Your task to perform on an android device: Check the weather Image 0: 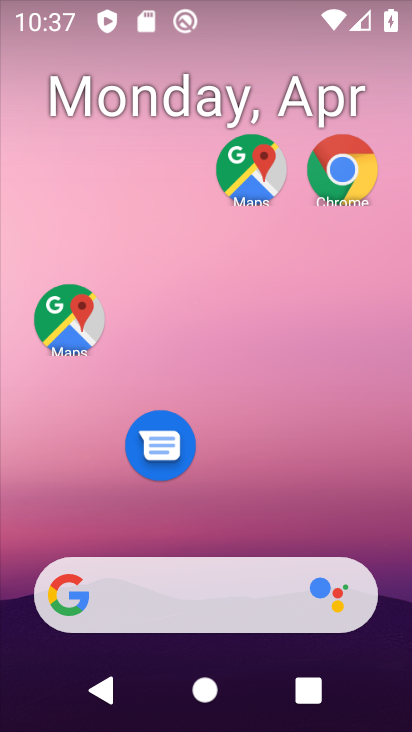
Step 0: drag from (344, 380) to (15, 345)
Your task to perform on an android device: Check the weather Image 1: 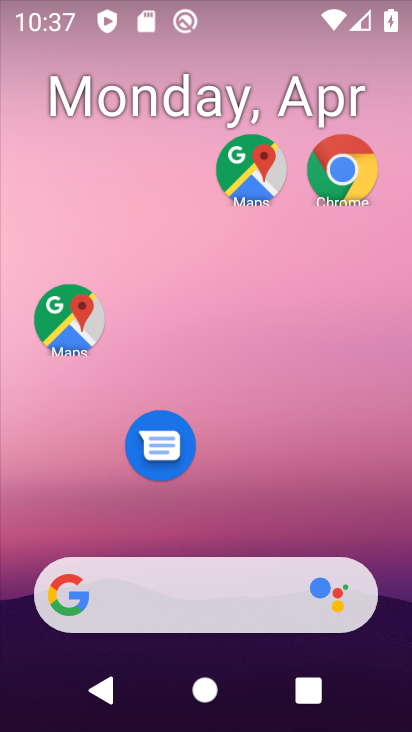
Step 1: drag from (109, 366) to (403, 327)
Your task to perform on an android device: Check the weather Image 2: 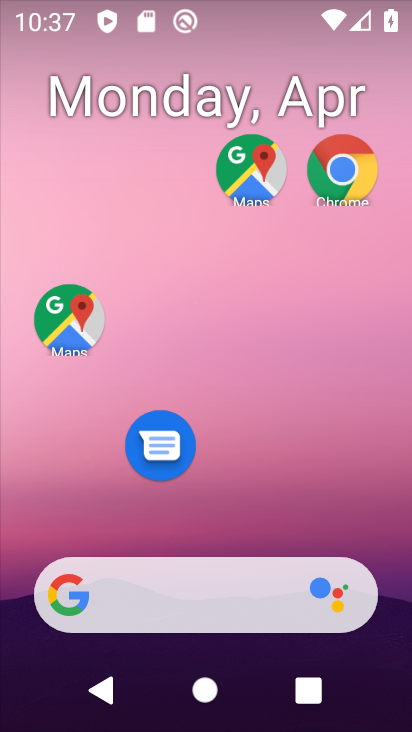
Step 2: drag from (53, 380) to (394, 397)
Your task to perform on an android device: Check the weather Image 3: 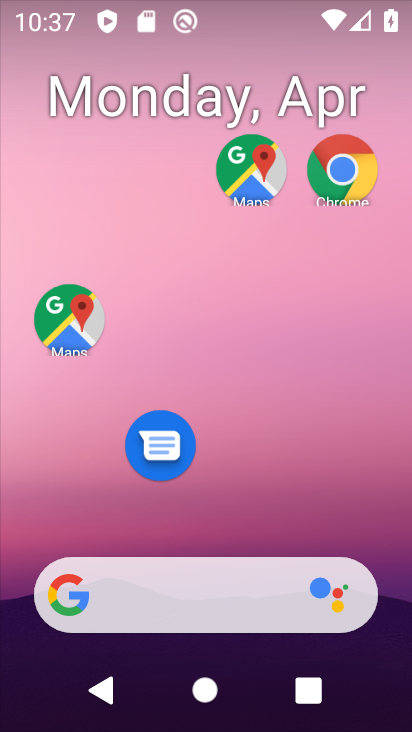
Step 3: drag from (49, 388) to (391, 394)
Your task to perform on an android device: Check the weather Image 4: 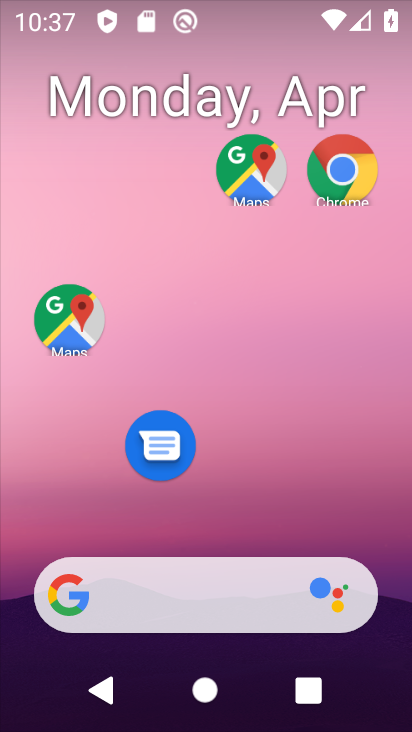
Step 4: drag from (118, 394) to (398, 376)
Your task to perform on an android device: Check the weather Image 5: 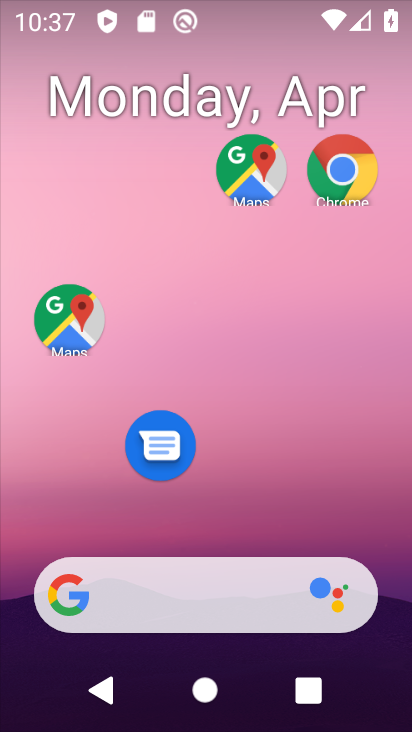
Step 5: drag from (35, 379) to (373, 317)
Your task to perform on an android device: Check the weather Image 6: 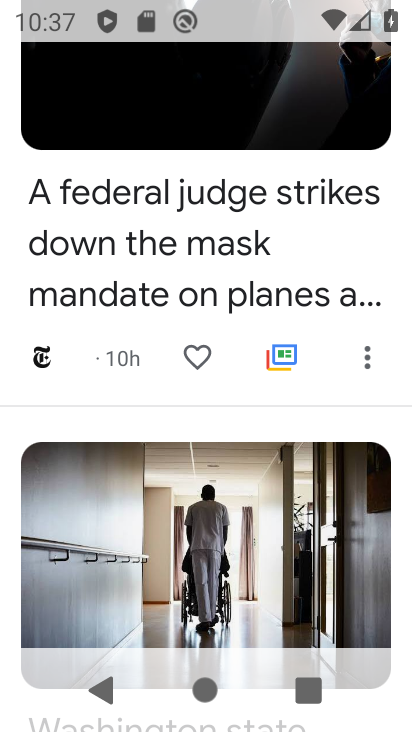
Step 6: drag from (358, 323) to (293, 730)
Your task to perform on an android device: Check the weather Image 7: 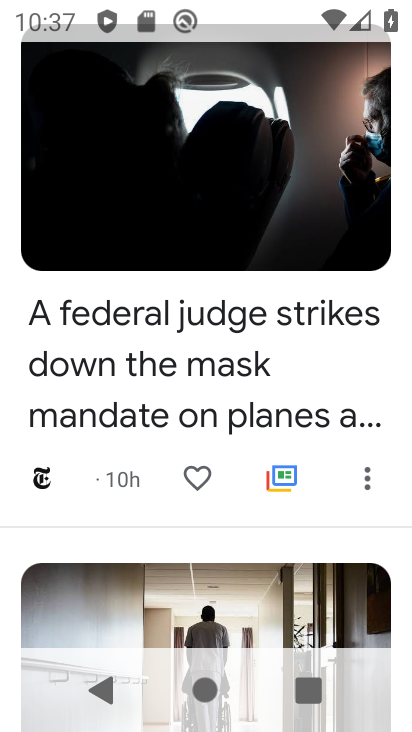
Step 7: drag from (351, 392) to (312, 653)
Your task to perform on an android device: Check the weather Image 8: 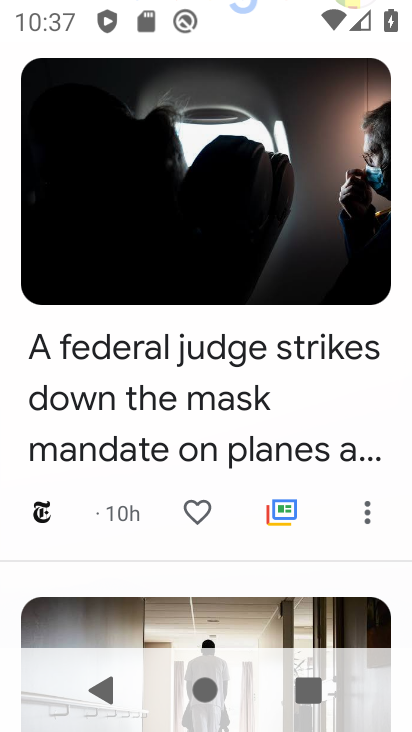
Step 8: drag from (81, 64) to (49, 560)
Your task to perform on an android device: Check the weather Image 9: 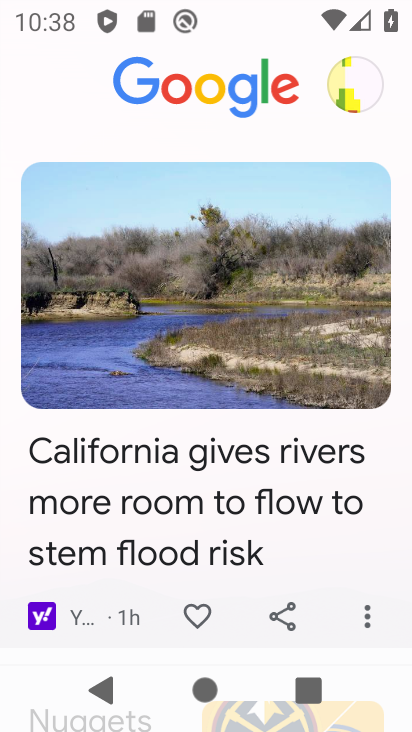
Step 9: drag from (355, 486) to (15, 424)
Your task to perform on an android device: Check the weather Image 10: 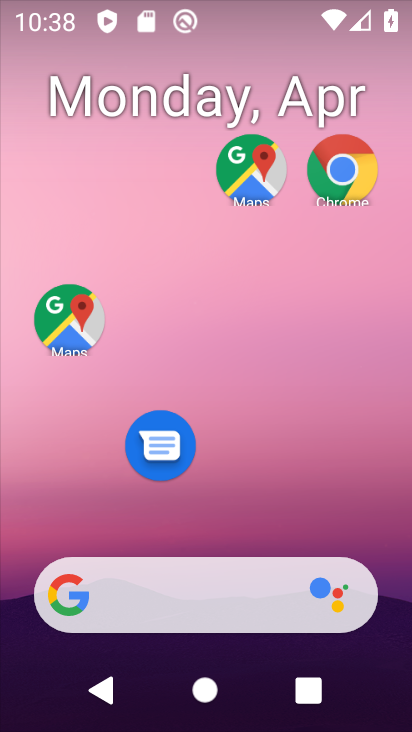
Step 10: click (213, 589)
Your task to perform on an android device: Check the weather Image 11: 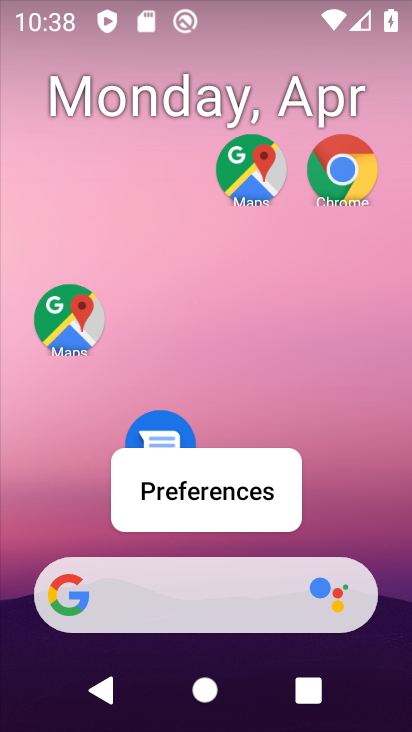
Step 11: click (218, 582)
Your task to perform on an android device: Check the weather Image 12: 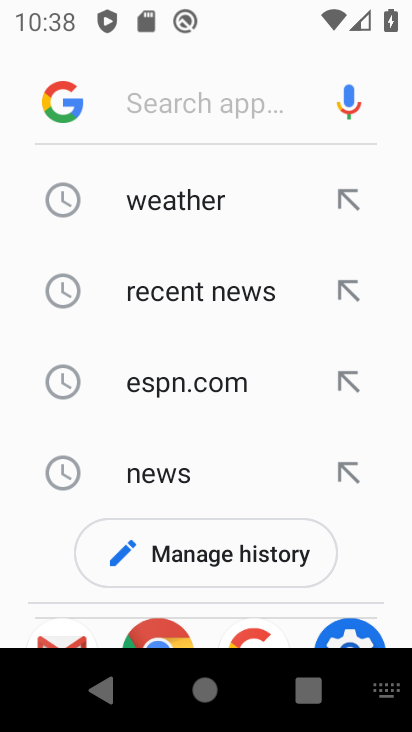
Step 12: click (152, 211)
Your task to perform on an android device: Check the weather Image 13: 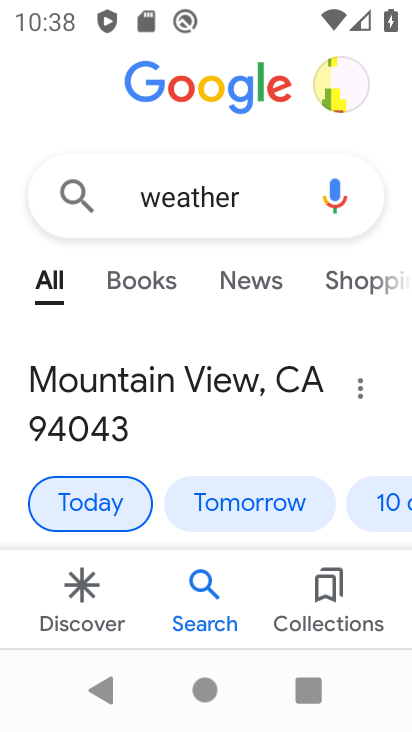
Step 13: task complete